Your task to perform on an android device: Open the Play Movies app and select the watchlist tab. Image 0: 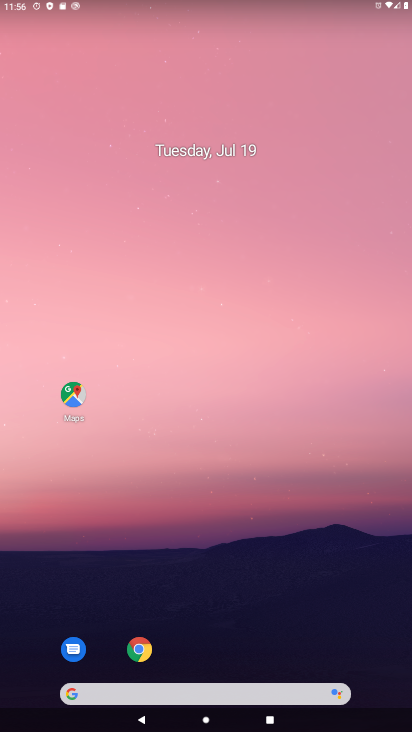
Step 0: drag from (224, 726) to (231, 632)
Your task to perform on an android device: Open the Play Movies app and select the watchlist tab. Image 1: 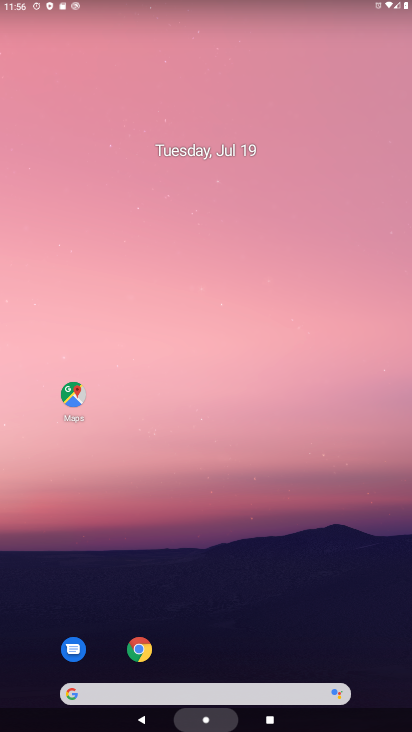
Step 1: drag from (240, 234) to (243, 194)
Your task to perform on an android device: Open the Play Movies app and select the watchlist tab. Image 2: 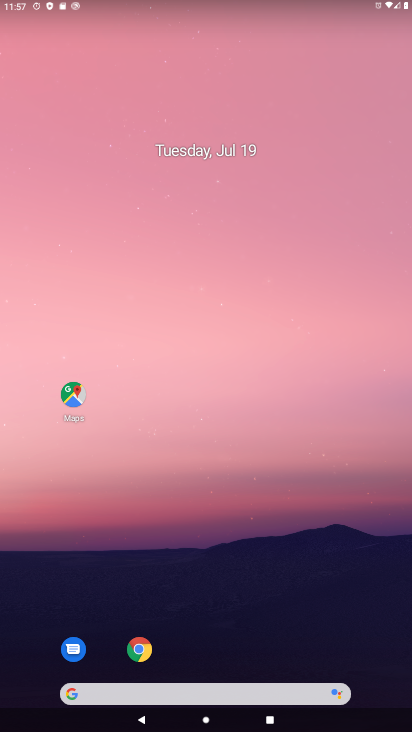
Step 2: drag from (236, 703) to (269, 173)
Your task to perform on an android device: Open the Play Movies app and select the watchlist tab. Image 3: 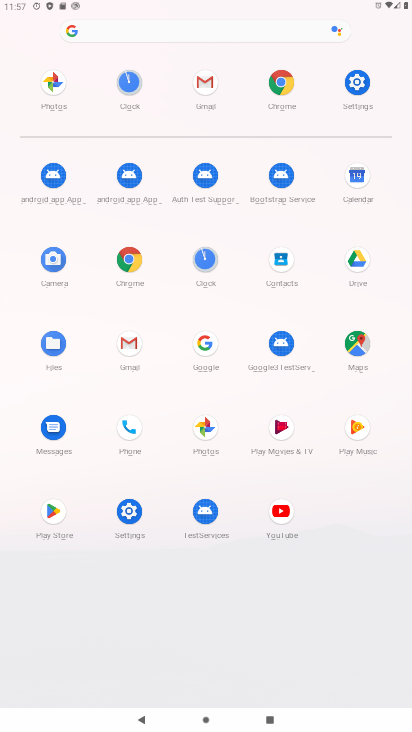
Step 3: click (280, 426)
Your task to perform on an android device: Open the Play Movies app and select the watchlist tab. Image 4: 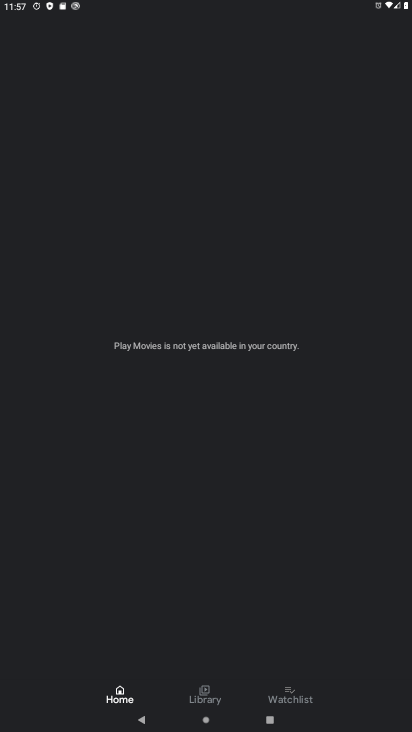
Step 4: click (297, 692)
Your task to perform on an android device: Open the Play Movies app and select the watchlist tab. Image 5: 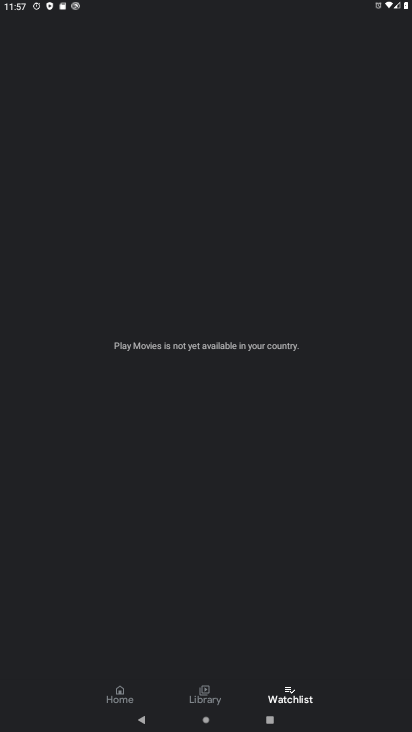
Step 5: task complete